Your task to perform on an android device: Open privacy settings Image 0: 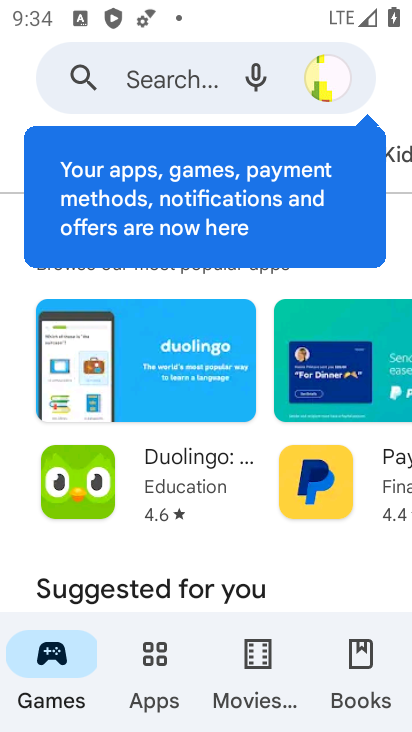
Step 0: press home button
Your task to perform on an android device: Open privacy settings Image 1: 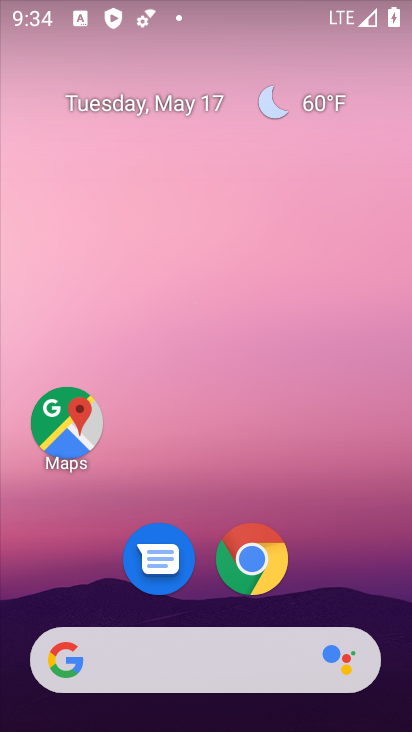
Step 1: drag from (192, 607) to (211, 166)
Your task to perform on an android device: Open privacy settings Image 2: 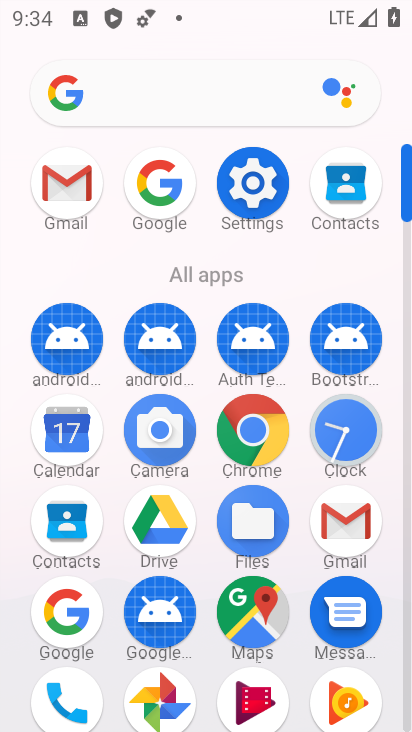
Step 2: click (229, 167)
Your task to perform on an android device: Open privacy settings Image 3: 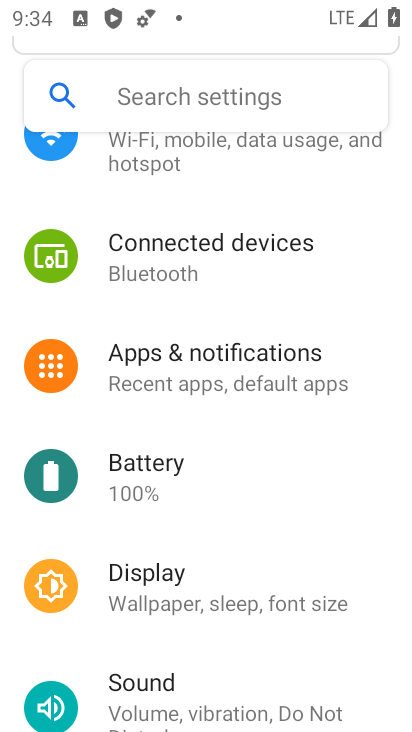
Step 3: drag from (260, 665) to (272, 354)
Your task to perform on an android device: Open privacy settings Image 4: 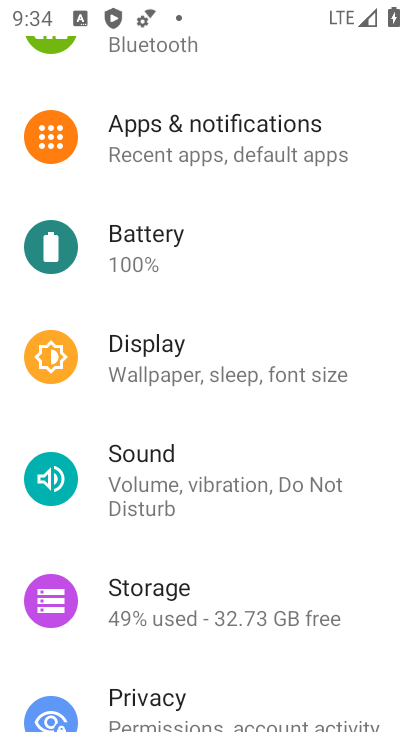
Step 4: drag from (221, 563) to (239, 394)
Your task to perform on an android device: Open privacy settings Image 5: 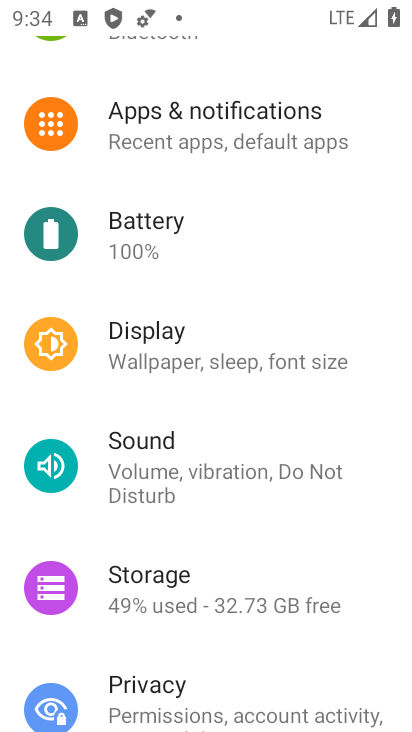
Step 5: click (140, 679)
Your task to perform on an android device: Open privacy settings Image 6: 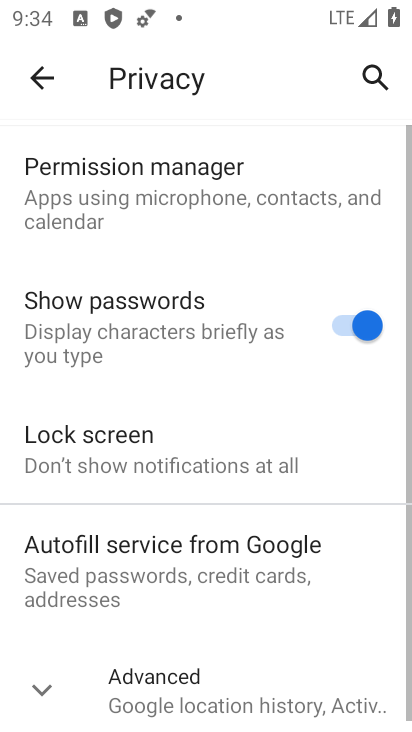
Step 6: task complete